Your task to perform on an android device: Go to Maps Image 0: 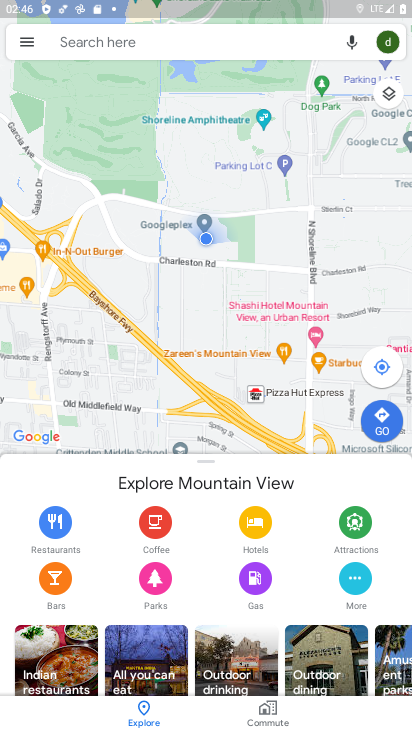
Step 0: task complete